Your task to perform on an android device: Go to privacy settings Image 0: 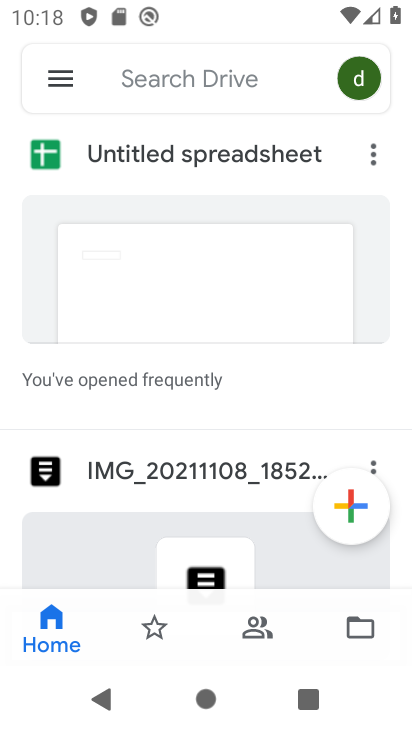
Step 0: press home button
Your task to perform on an android device: Go to privacy settings Image 1: 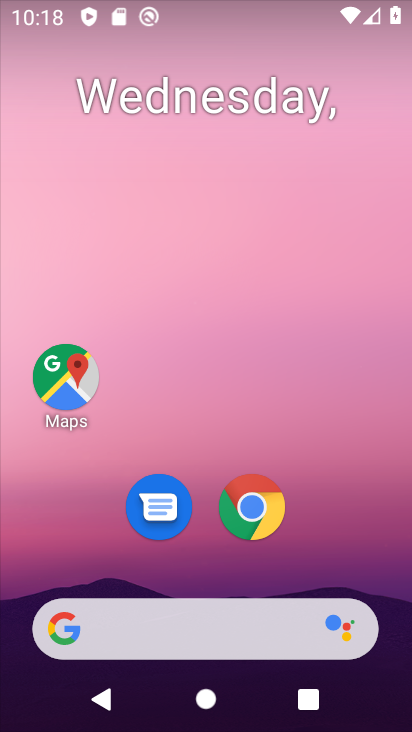
Step 1: drag from (332, 574) to (324, 264)
Your task to perform on an android device: Go to privacy settings Image 2: 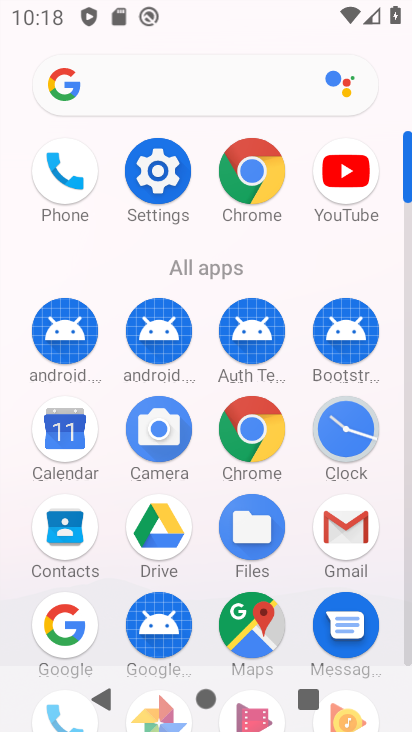
Step 2: click (164, 137)
Your task to perform on an android device: Go to privacy settings Image 3: 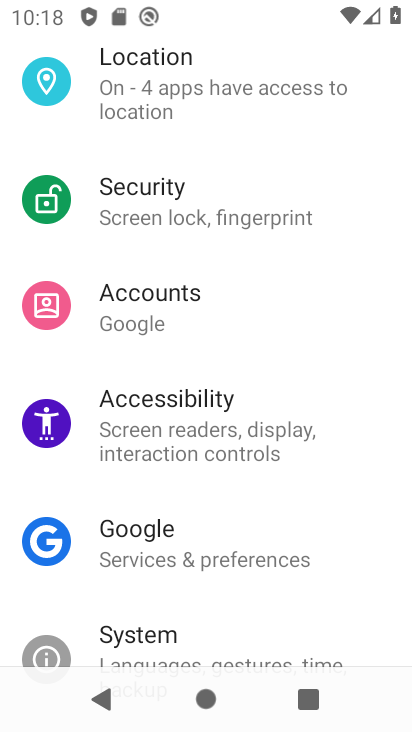
Step 3: drag from (222, 132) to (195, 594)
Your task to perform on an android device: Go to privacy settings Image 4: 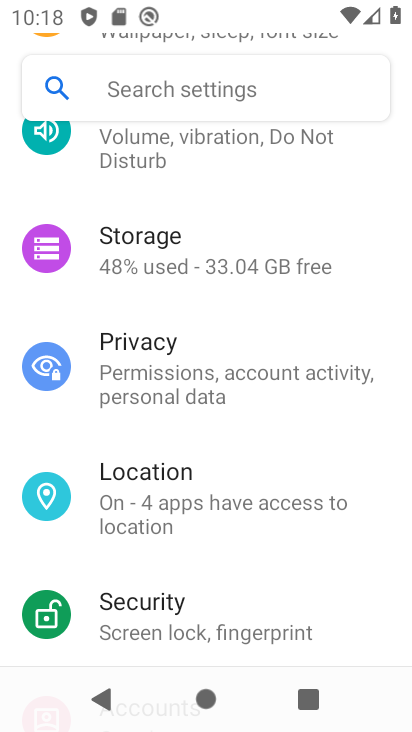
Step 4: click (179, 345)
Your task to perform on an android device: Go to privacy settings Image 5: 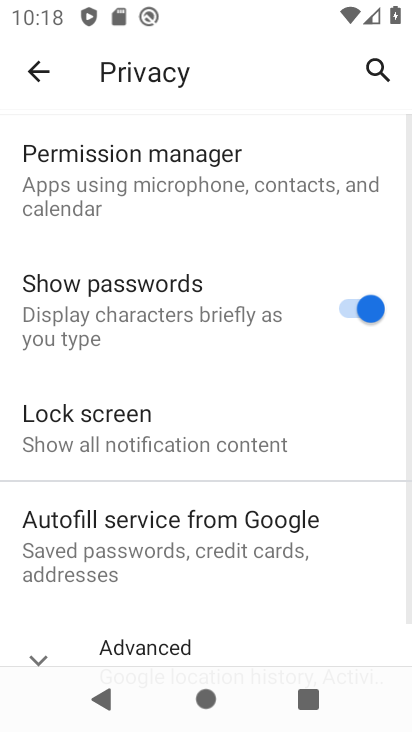
Step 5: task complete